Your task to perform on an android device: show emergency info Image 0: 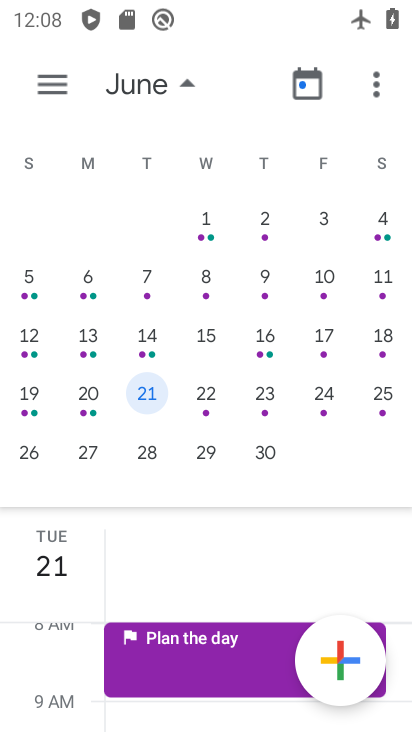
Step 0: press home button
Your task to perform on an android device: show emergency info Image 1: 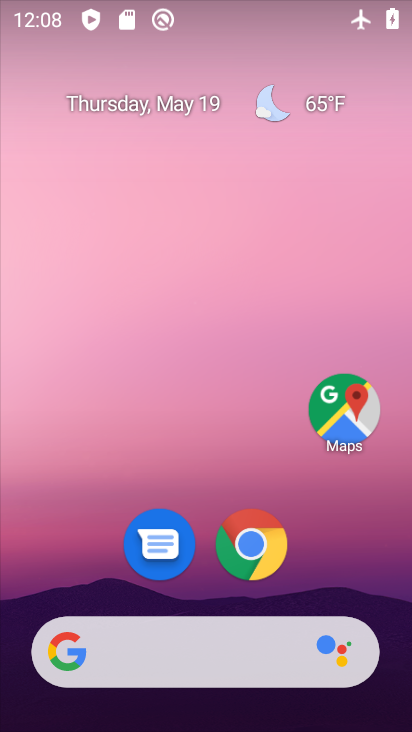
Step 1: drag from (358, 570) to (363, 183)
Your task to perform on an android device: show emergency info Image 2: 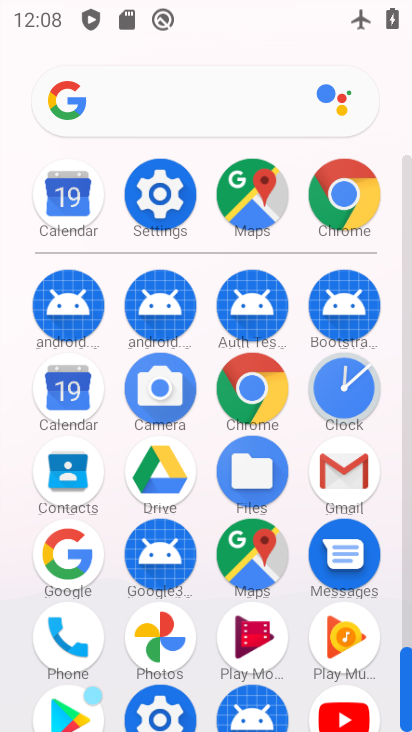
Step 2: click (175, 207)
Your task to perform on an android device: show emergency info Image 3: 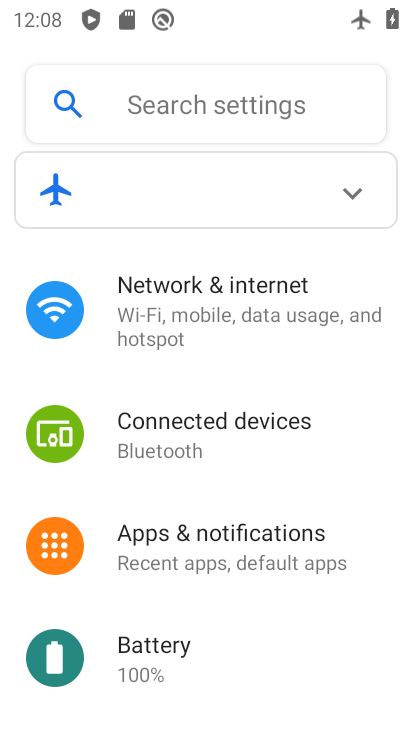
Step 3: drag from (375, 575) to (381, 465)
Your task to perform on an android device: show emergency info Image 4: 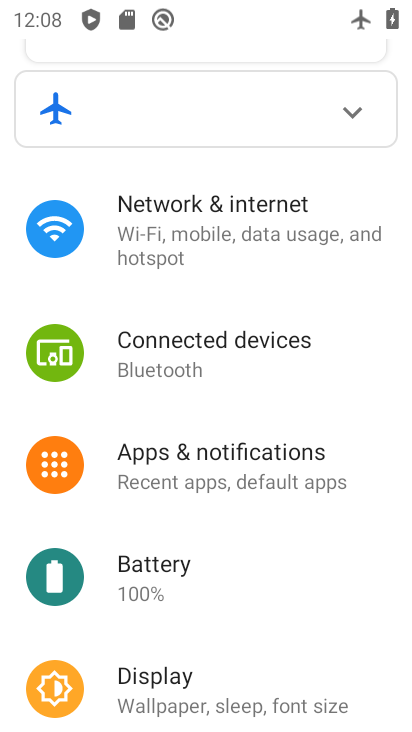
Step 4: drag from (379, 592) to (378, 491)
Your task to perform on an android device: show emergency info Image 5: 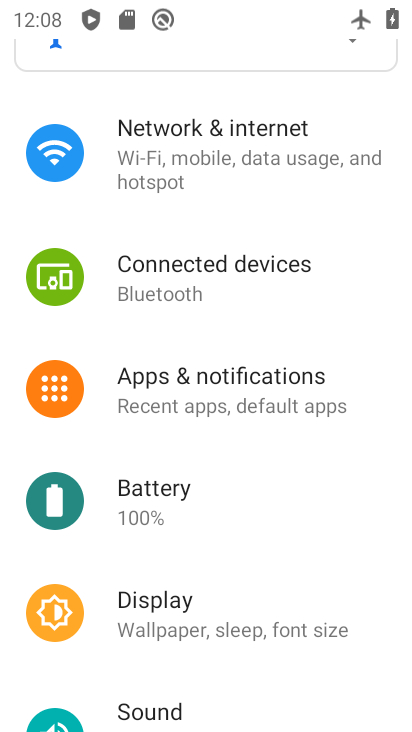
Step 5: drag from (378, 618) to (364, 518)
Your task to perform on an android device: show emergency info Image 6: 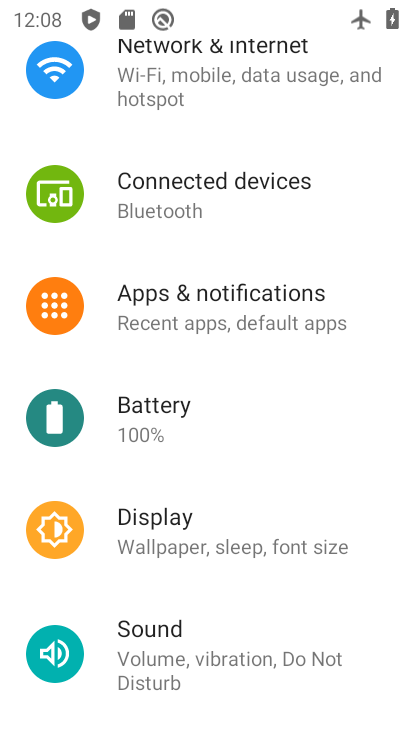
Step 6: drag from (377, 646) to (379, 560)
Your task to perform on an android device: show emergency info Image 7: 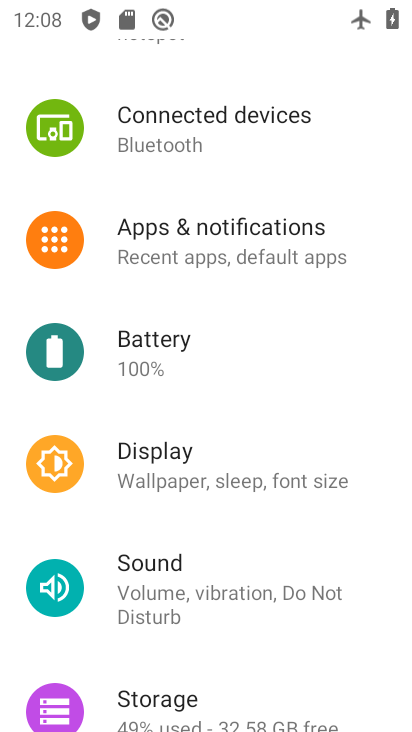
Step 7: drag from (381, 660) to (389, 556)
Your task to perform on an android device: show emergency info Image 8: 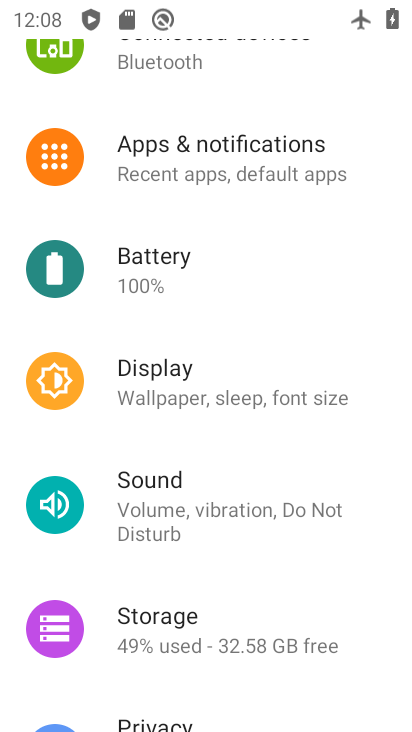
Step 8: drag from (386, 661) to (380, 561)
Your task to perform on an android device: show emergency info Image 9: 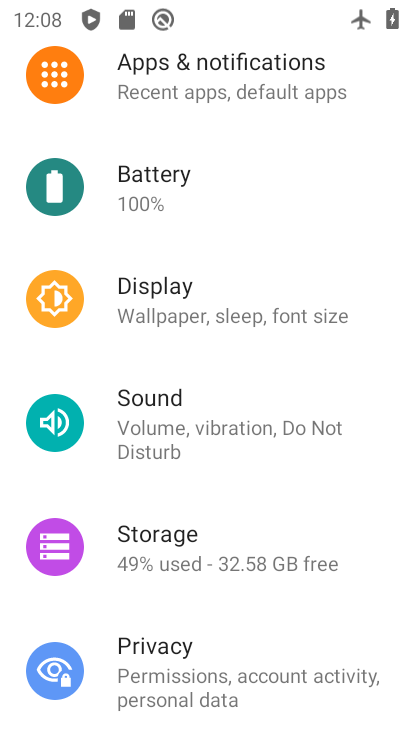
Step 9: drag from (355, 646) to (359, 523)
Your task to perform on an android device: show emergency info Image 10: 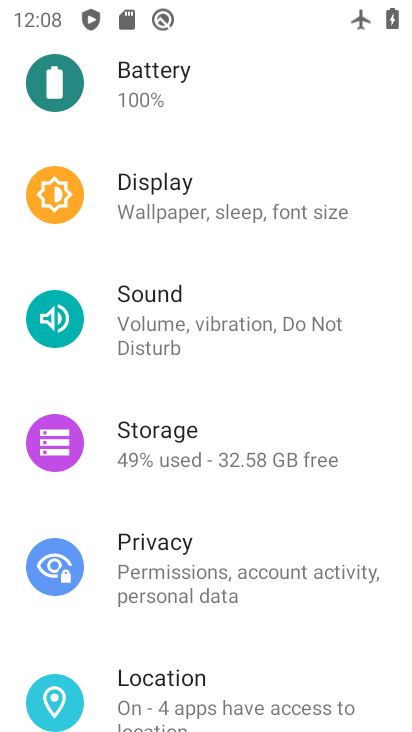
Step 10: drag from (356, 645) to (352, 561)
Your task to perform on an android device: show emergency info Image 11: 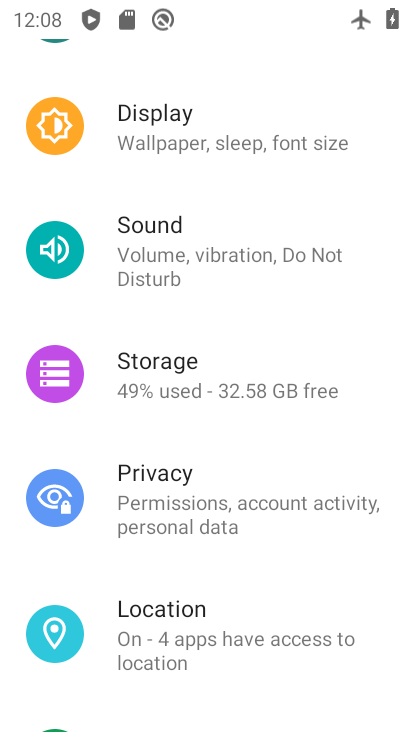
Step 11: drag from (348, 674) to (344, 554)
Your task to perform on an android device: show emergency info Image 12: 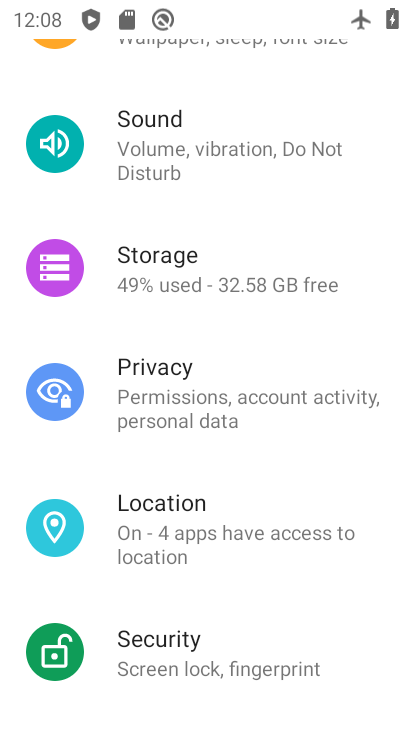
Step 12: drag from (352, 697) to (349, 593)
Your task to perform on an android device: show emergency info Image 13: 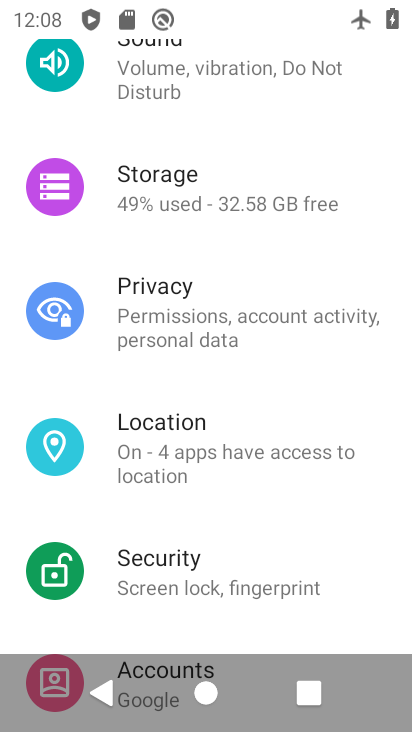
Step 13: drag from (342, 616) to (342, 504)
Your task to perform on an android device: show emergency info Image 14: 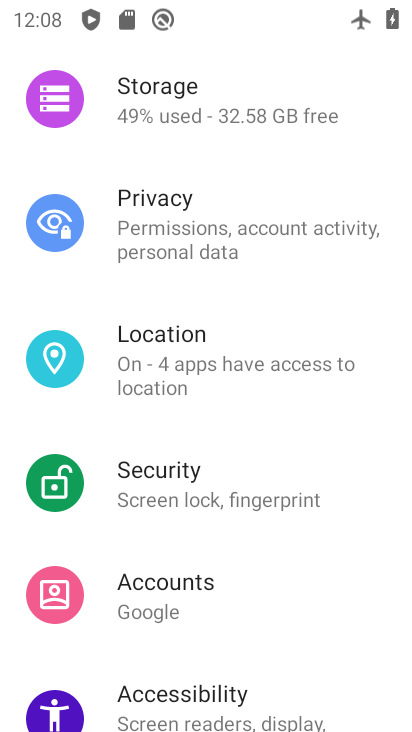
Step 14: drag from (345, 680) to (348, 534)
Your task to perform on an android device: show emergency info Image 15: 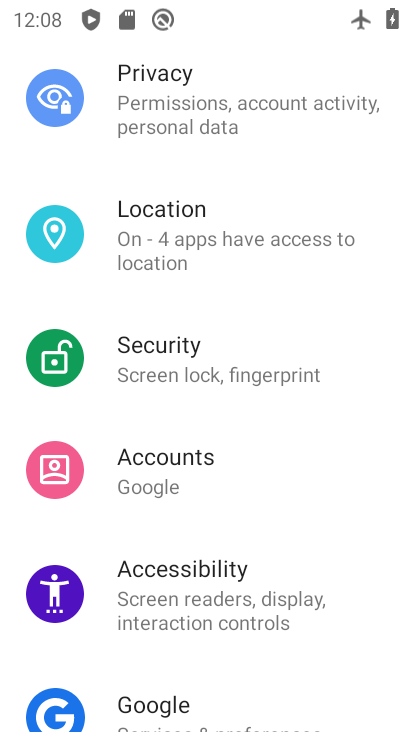
Step 15: drag from (332, 673) to (335, 604)
Your task to perform on an android device: show emergency info Image 16: 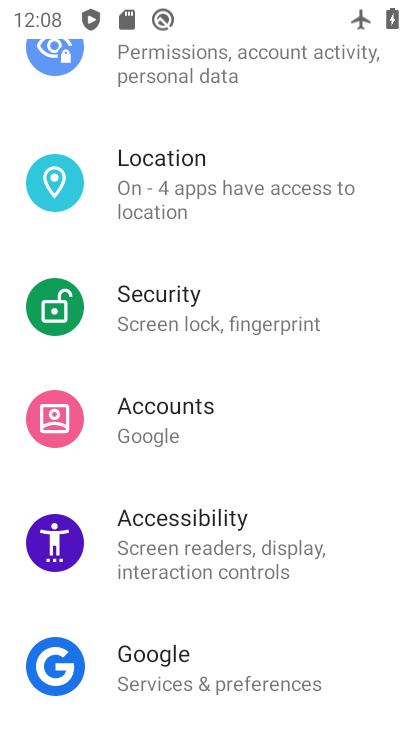
Step 16: drag from (348, 672) to (346, 487)
Your task to perform on an android device: show emergency info Image 17: 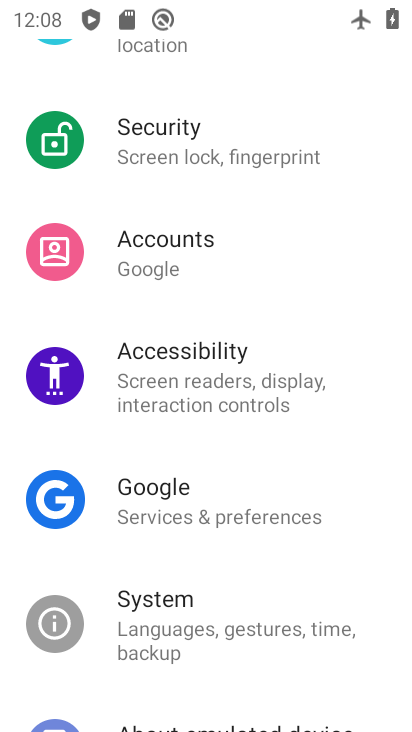
Step 17: drag from (312, 683) to (328, 523)
Your task to perform on an android device: show emergency info Image 18: 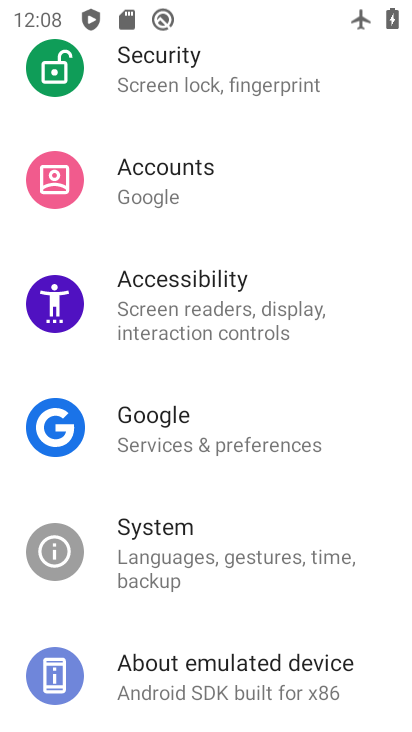
Step 18: click (315, 695)
Your task to perform on an android device: show emergency info Image 19: 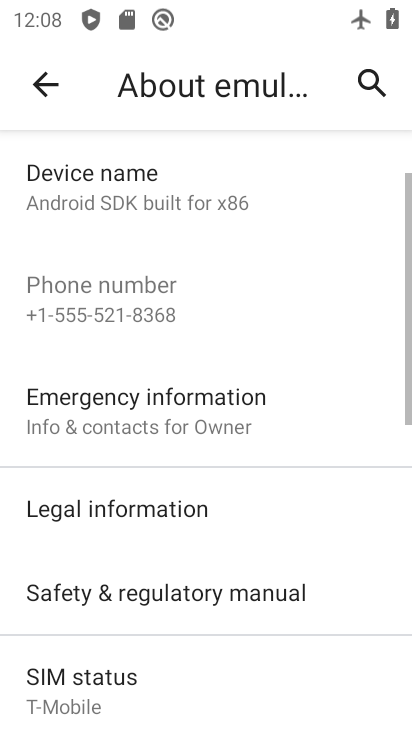
Step 19: click (257, 430)
Your task to perform on an android device: show emergency info Image 20: 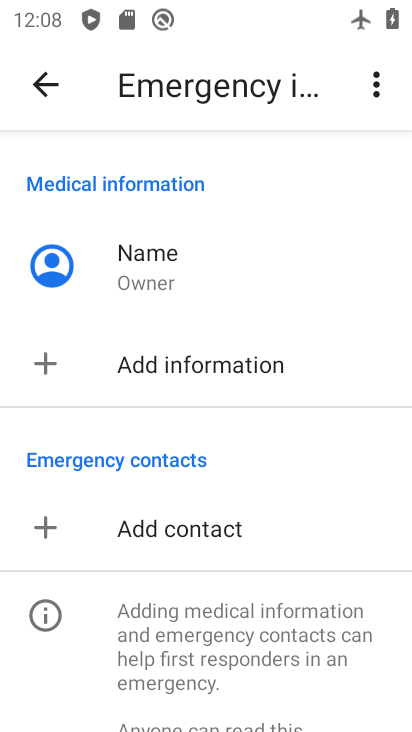
Step 20: task complete